Your task to perform on an android device: delete browsing data in the chrome app Image 0: 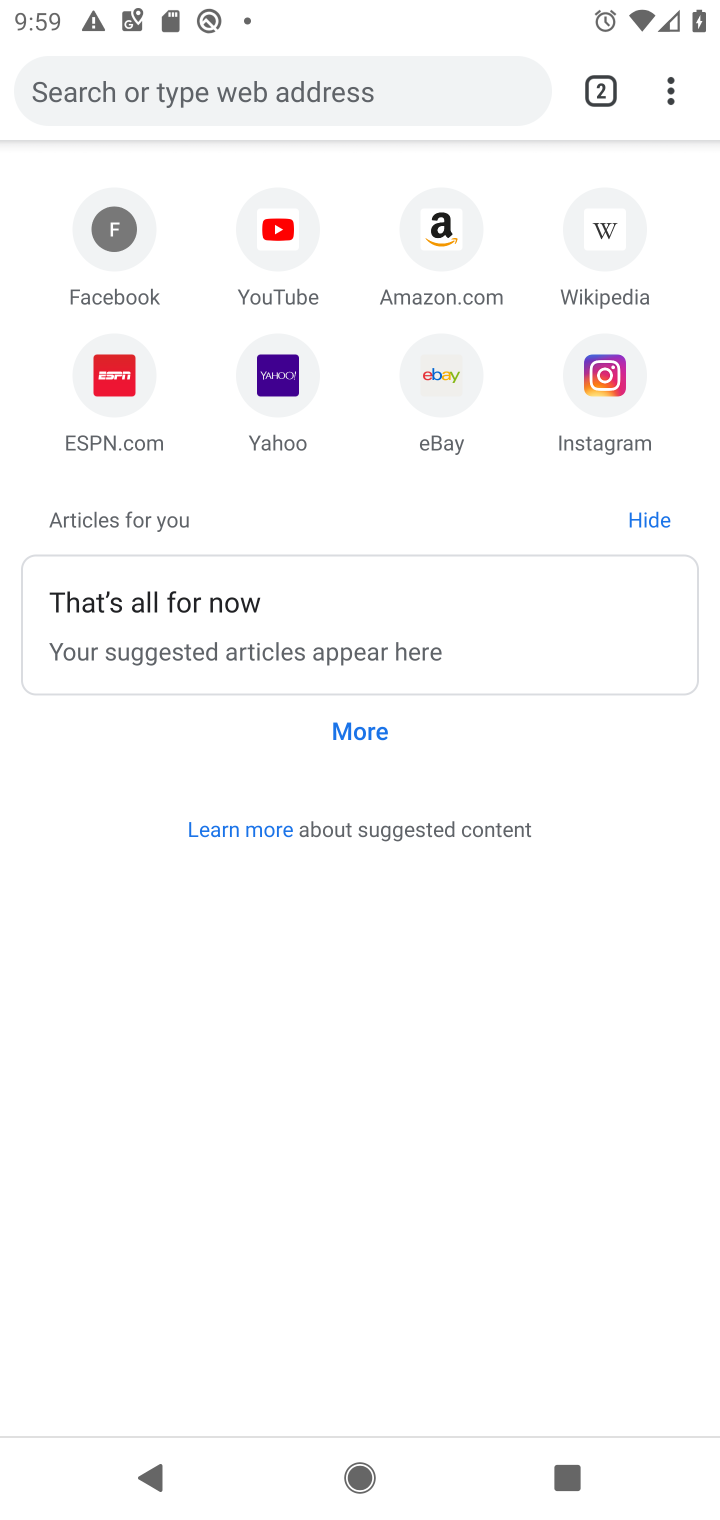
Step 0: press home button
Your task to perform on an android device: delete browsing data in the chrome app Image 1: 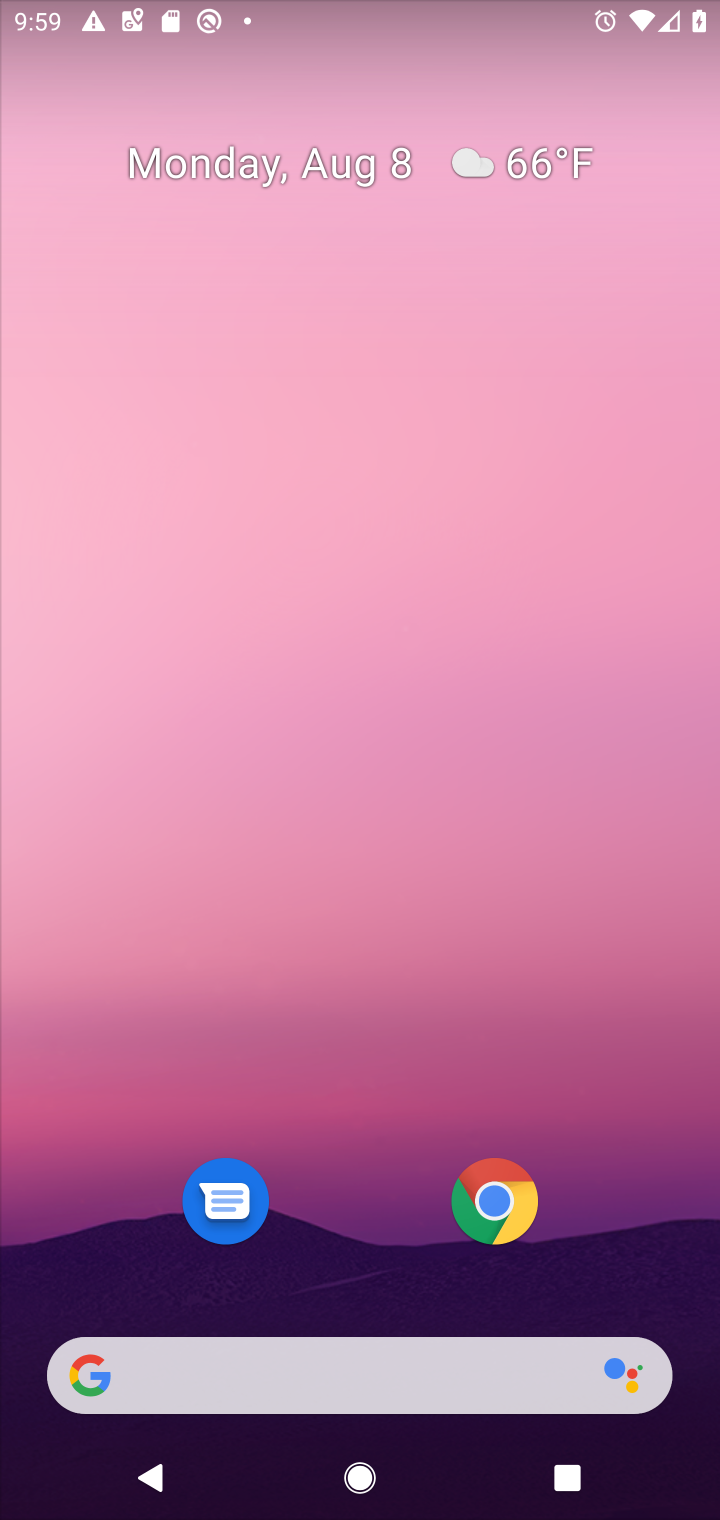
Step 1: drag from (389, 1176) to (441, 387)
Your task to perform on an android device: delete browsing data in the chrome app Image 2: 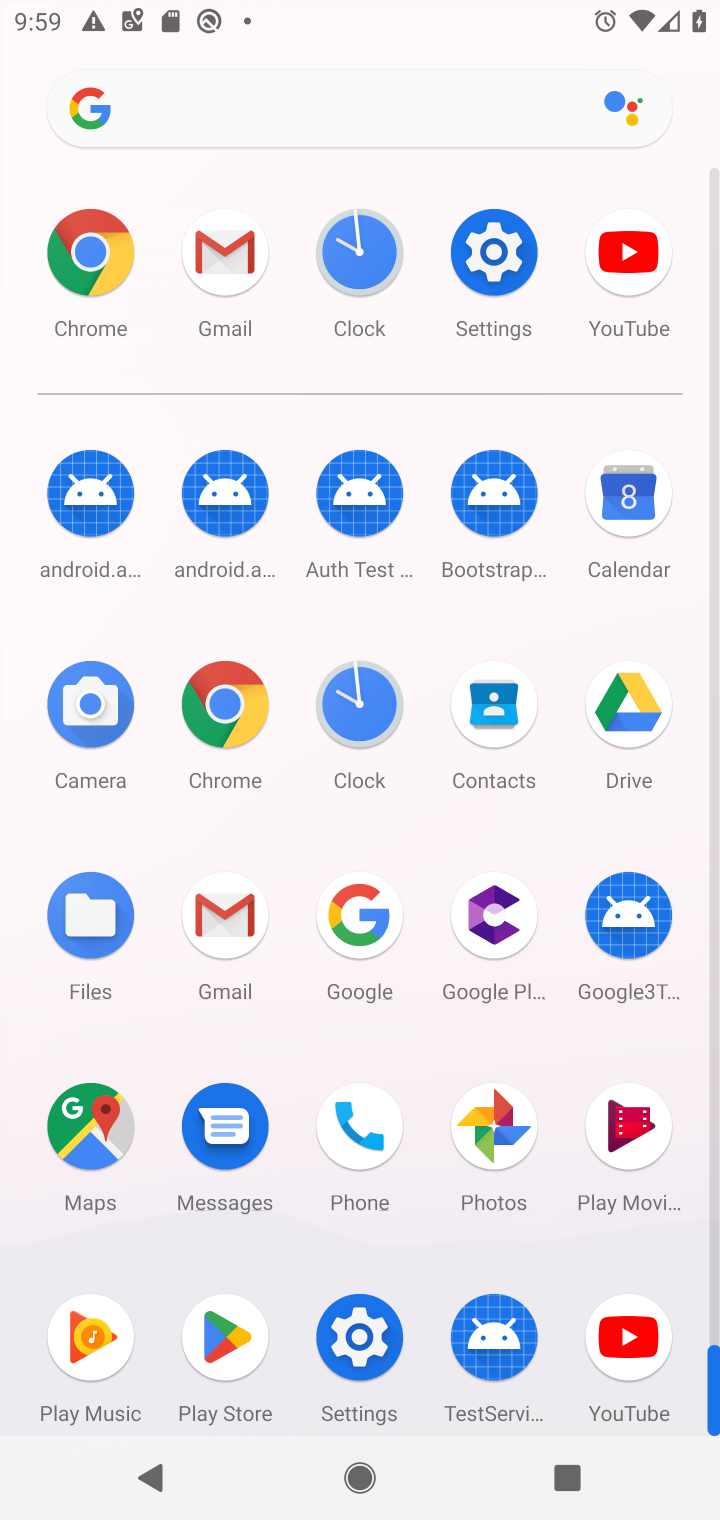
Step 2: click (226, 717)
Your task to perform on an android device: delete browsing data in the chrome app Image 3: 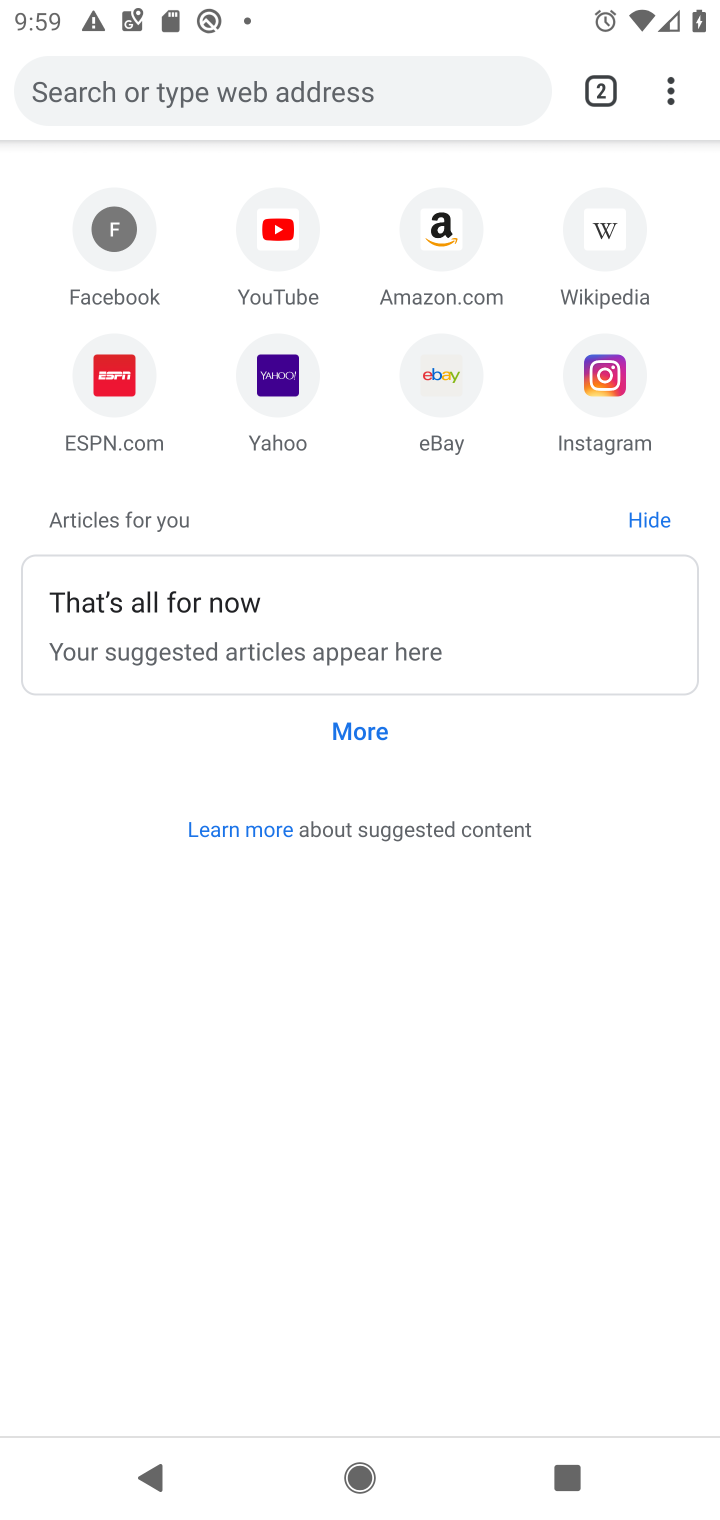
Step 3: click (671, 85)
Your task to perform on an android device: delete browsing data in the chrome app Image 4: 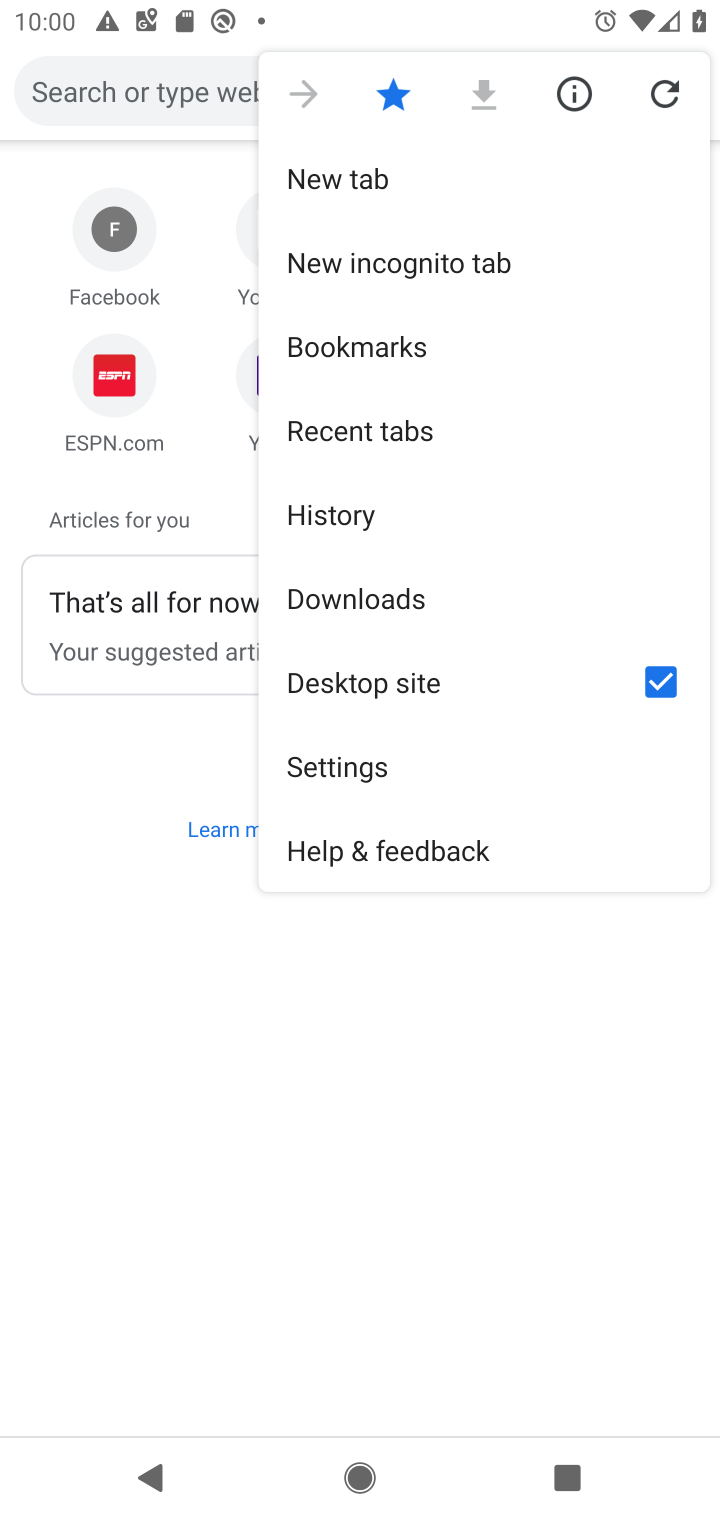
Step 4: click (352, 767)
Your task to perform on an android device: delete browsing data in the chrome app Image 5: 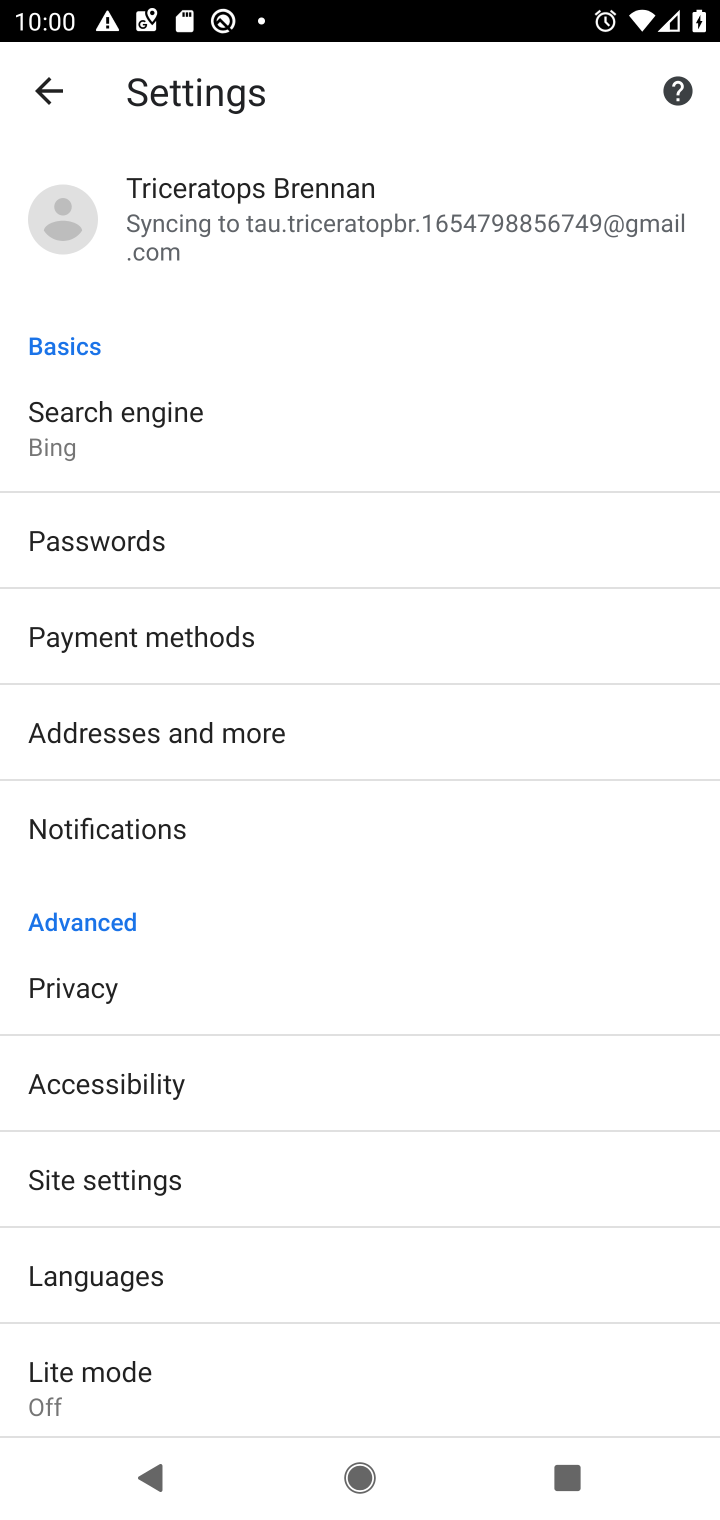
Step 5: click (112, 986)
Your task to perform on an android device: delete browsing data in the chrome app Image 6: 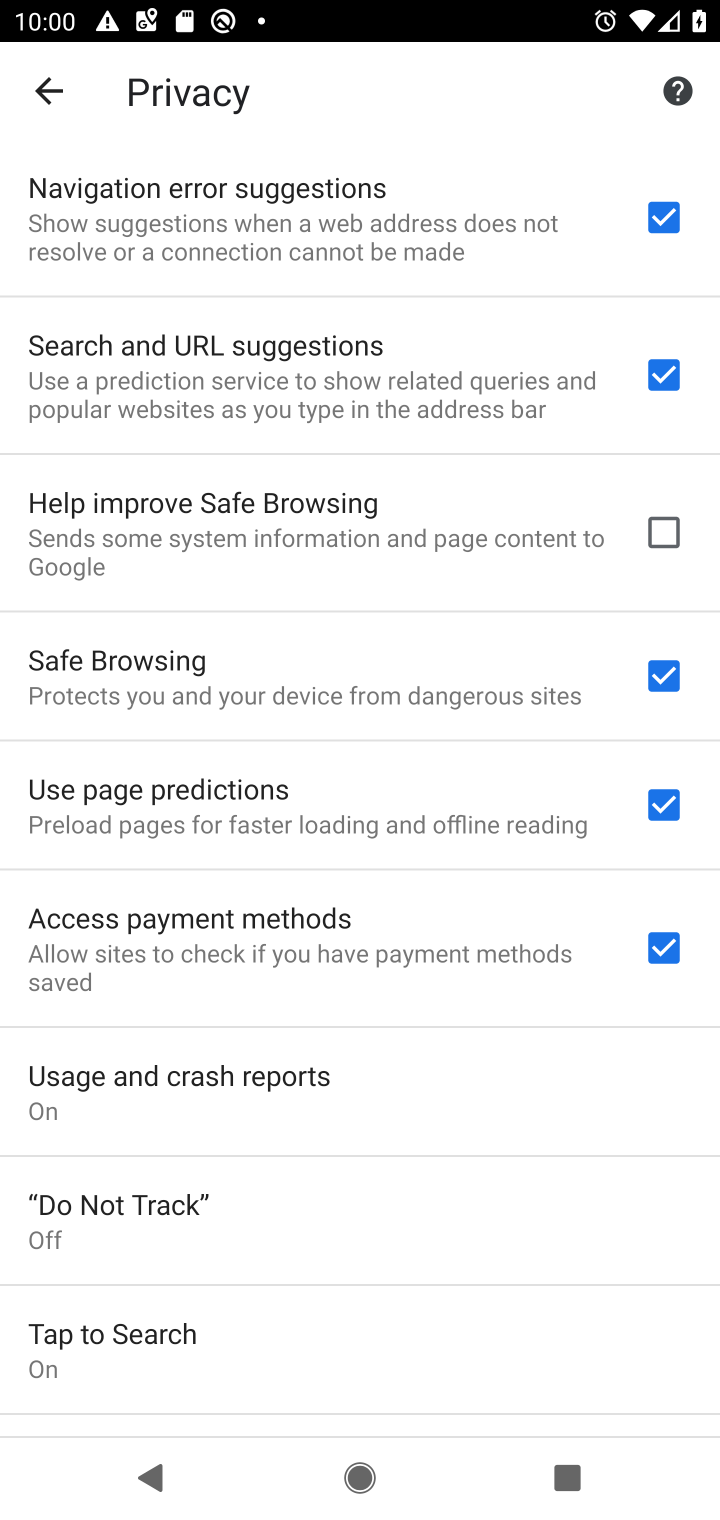
Step 6: drag from (392, 1123) to (426, 594)
Your task to perform on an android device: delete browsing data in the chrome app Image 7: 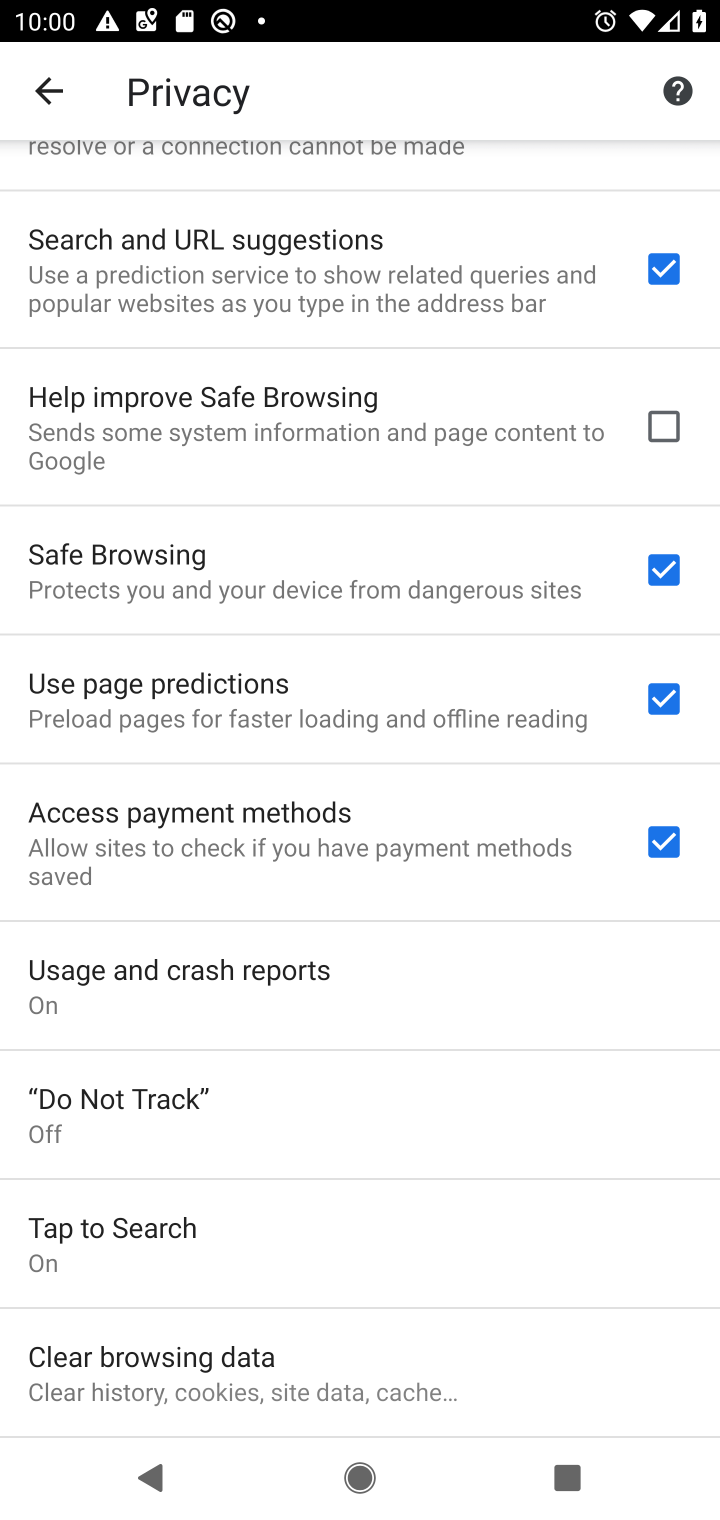
Step 7: click (382, 1384)
Your task to perform on an android device: delete browsing data in the chrome app Image 8: 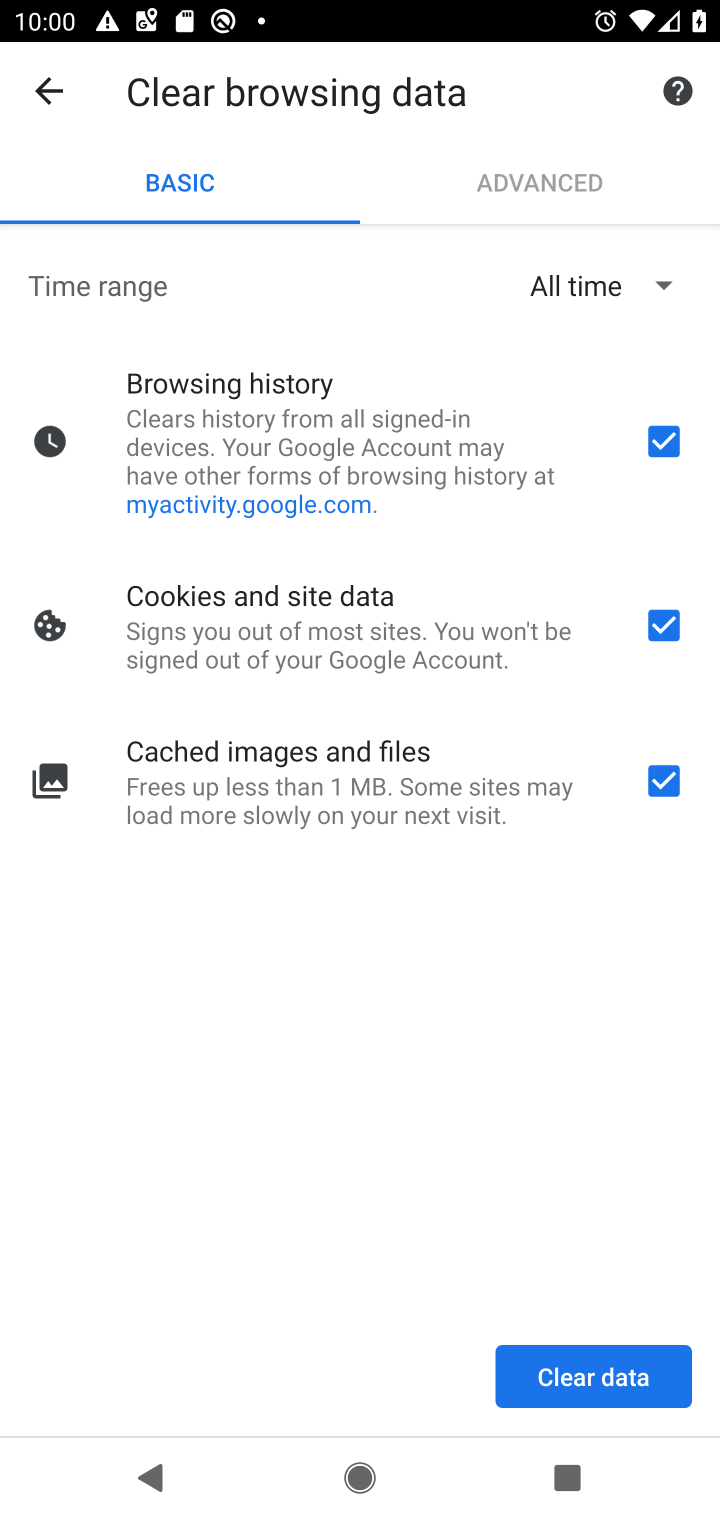
Step 8: click (618, 1368)
Your task to perform on an android device: delete browsing data in the chrome app Image 9: 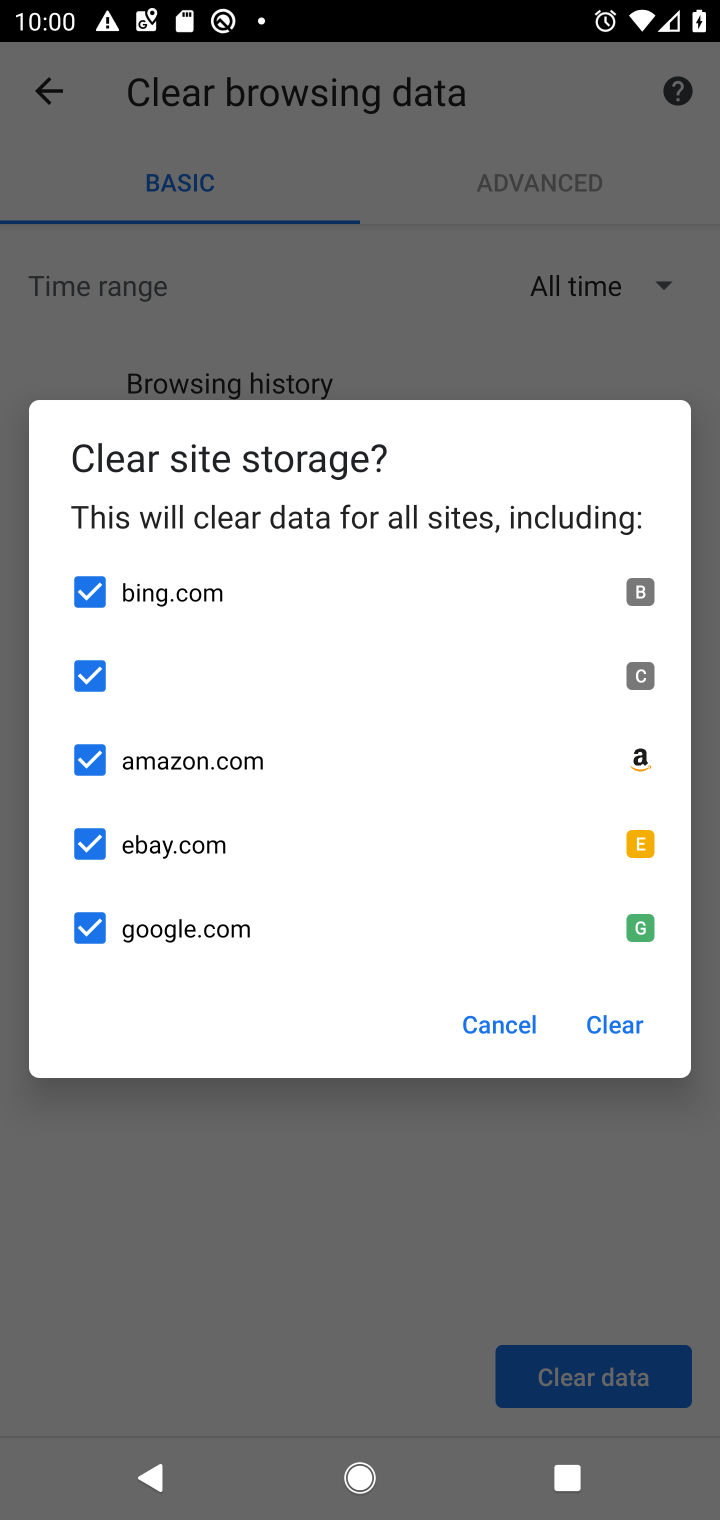
Step 9: click (642, 1020)
Your task to perform on an android device: delete browsing data in the chrome app Image 10: 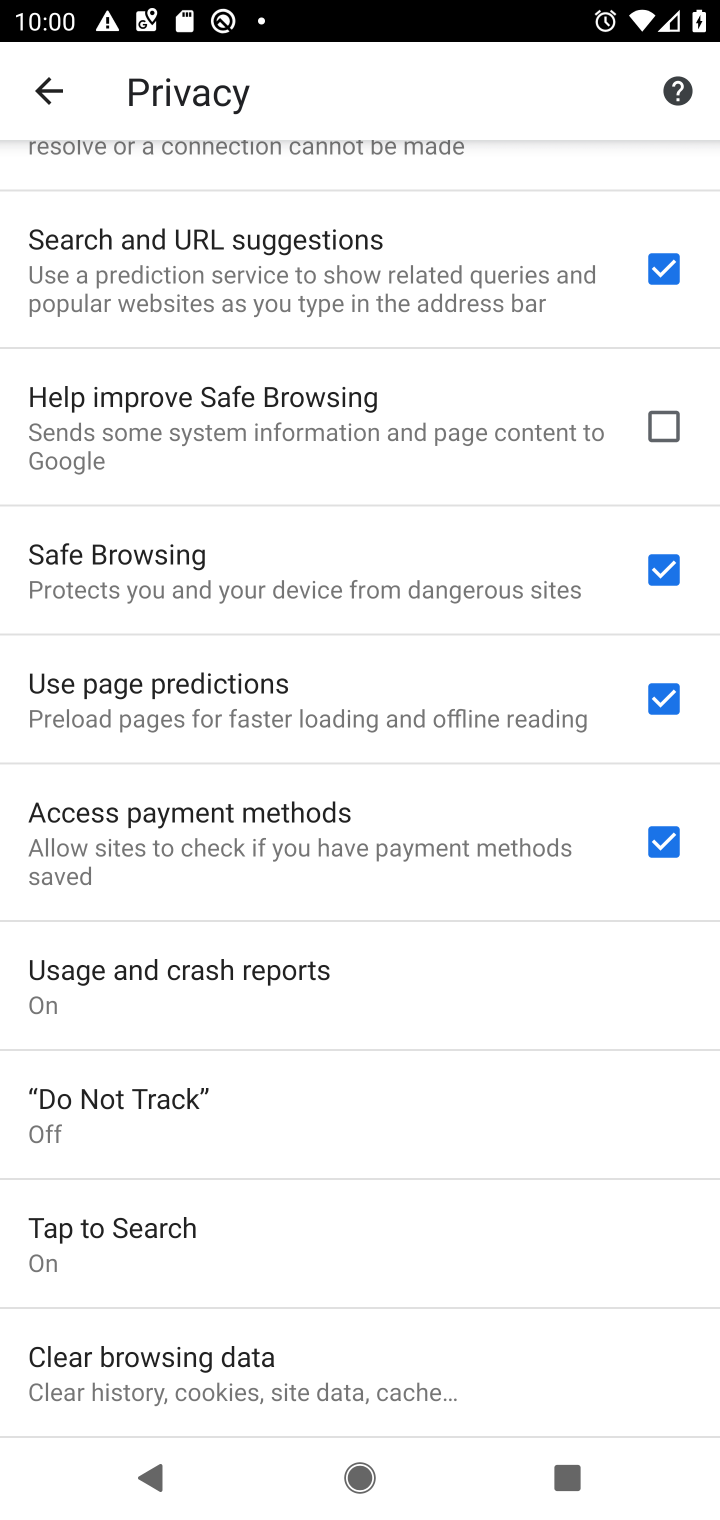
Step 10: task complete